Your task to perform on an android device: find snoozed emails in the gmail app Image 0: 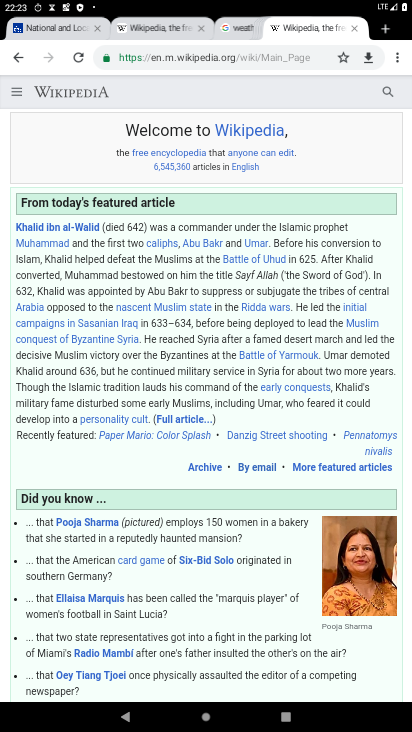
Step 0: press home button
Your task to perform on an android device: find snoozed emails in the gmail app Image 1: 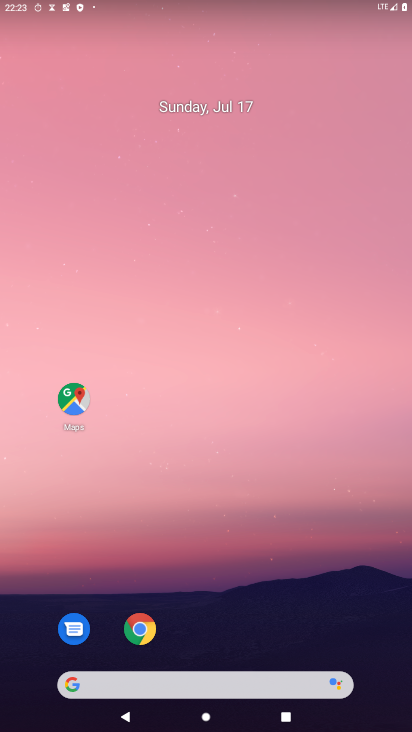
Step 1: drag from (231, 688) to (241, 138)
Your task to perform on an android device: find snoozed emails in the gmail app Image 2: 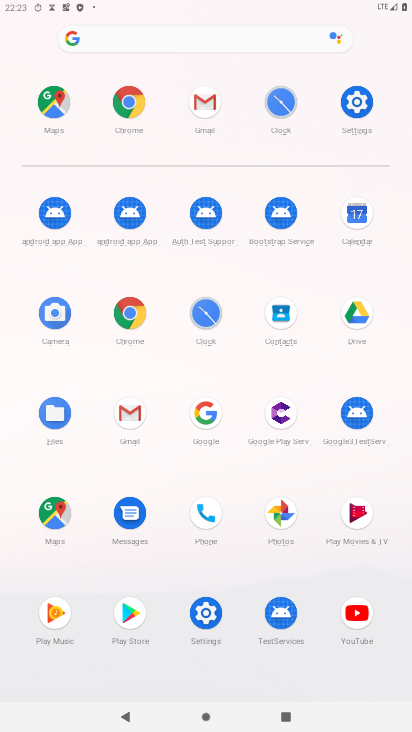
Step 2: click (130, 416)
Your task to perform on an android device: find snoozed emails in the gmail app Image 3: 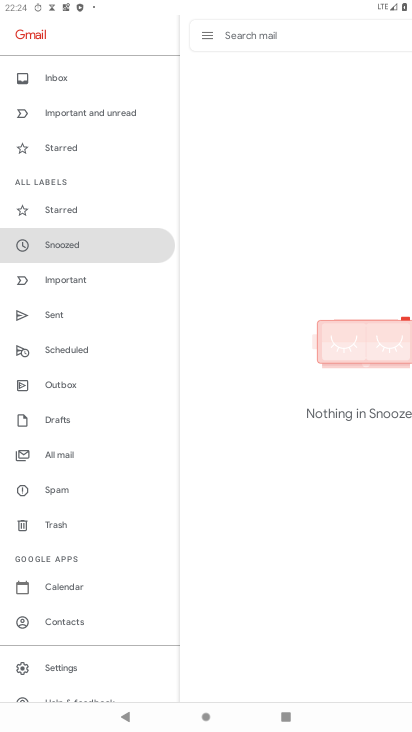
Step 3: task complete